Your task to perform on an android device: Open the Play Movies app and select the watchlist tab. Image 0: 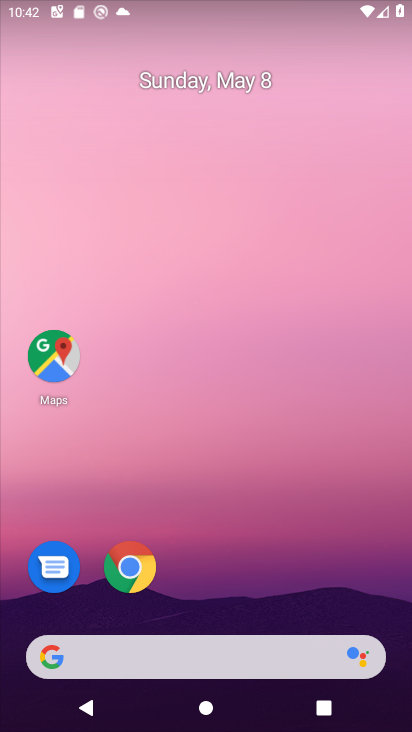
Step 0: drag from (223, 544) to (229, 196)
Your task to perform on an android device: Open the Play Movies app and select the watchlist tab. Image 1: 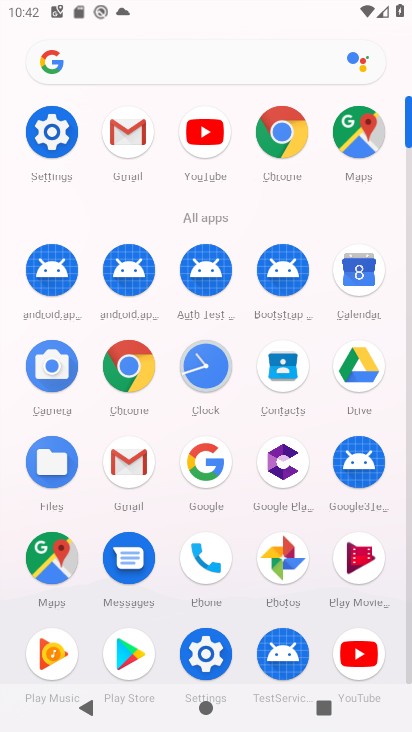
Step 1: click (367, 568)
Your task to perform on an android device: Open the Play Movies app and select the watchlist tab. Image 2: 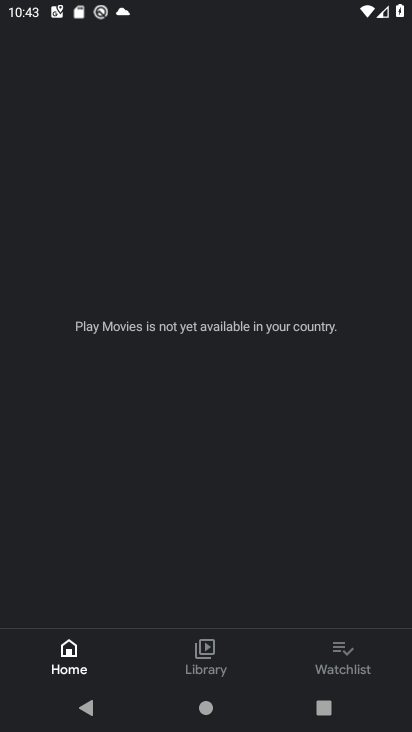
Step 2: click (348, 673)
Your task to perform on an android device: Open the Play Movies app and select the watchlist tab. Image 3: 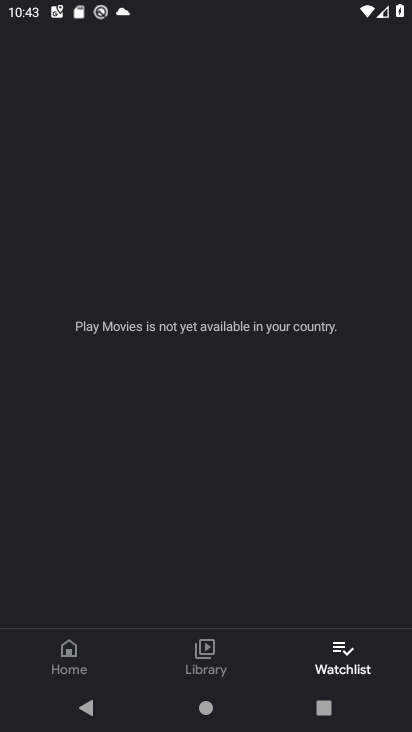
Step 3: task complete